Your task to perform on an android device: What's on my calendar tomorrow? Image 0: 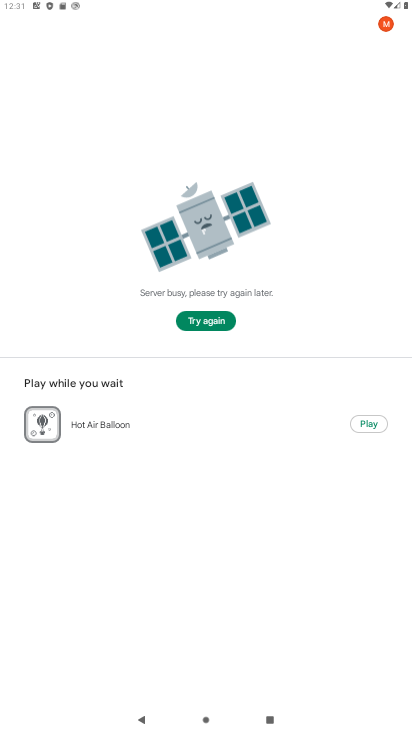
Step 0: press home button
Your task to perform on an android device: What's on my calendar tomorrow? Image 1: 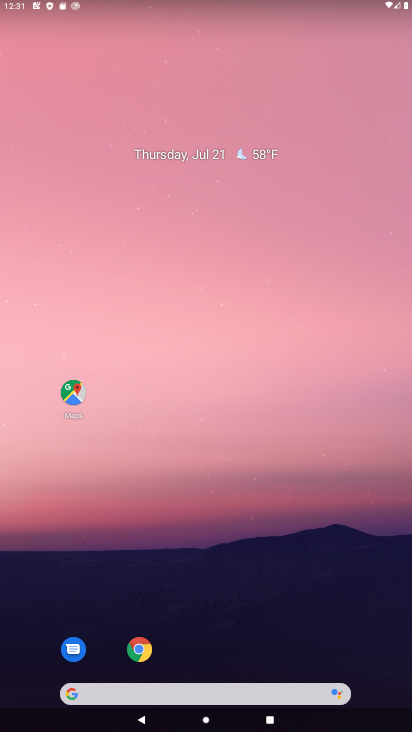
Step 1: drag from (369, 651) to (329, 128)
Your task to perform on an android device: What's on my calendar tomorrow? Image 2: 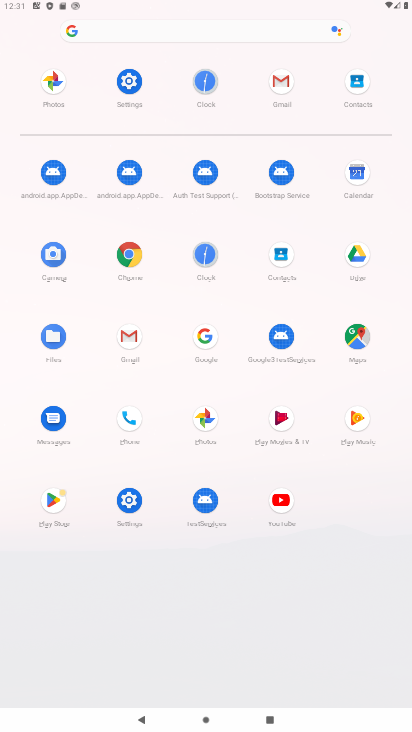
Step 2: click (358, 170)
Your task to perform on an android device: What's on my calendar tomorrow? Image 3: 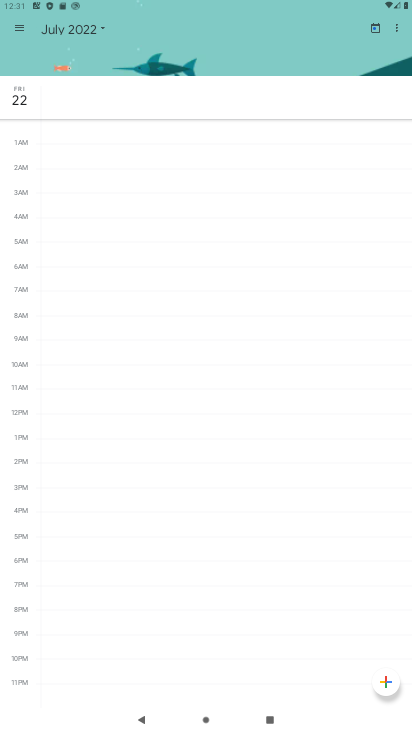
Step 3: click (98, 31)
Your task to perform on an android device: What's on my calendar tomorrow? Image 4: 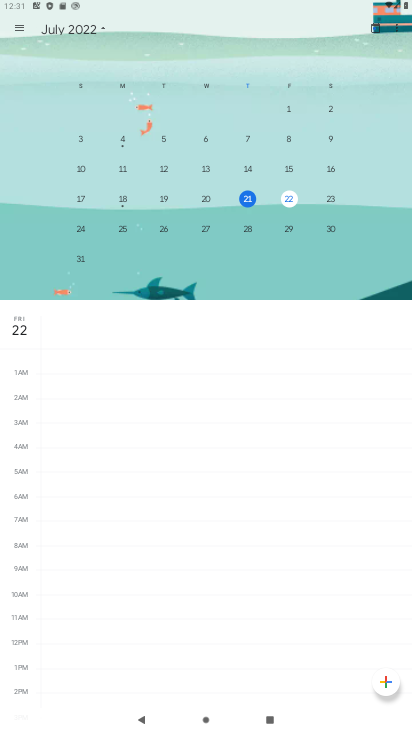
Step 4: task complete